Your task to perform on an android device: add a contact Image 0: 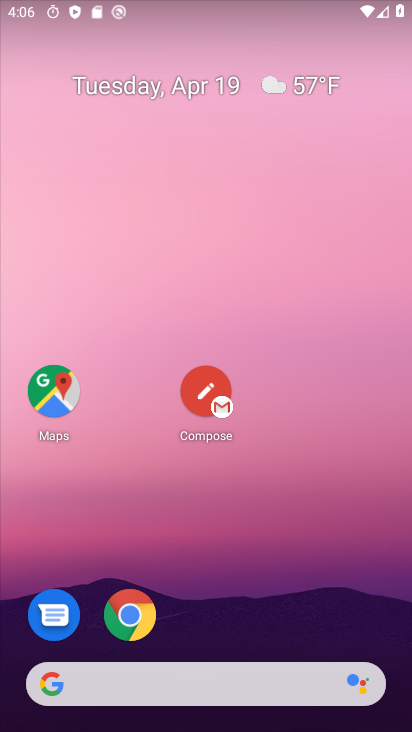
Step 0: drag from (212, 633) to (262, 95)
Your task to perform on an android device: add a contact Image 1: 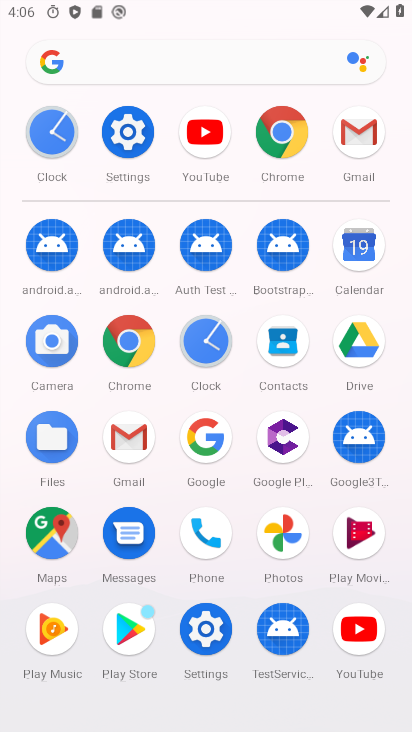
Step 1: click (291, 343)
Your task to perform on an android device: add a contact Image 2: 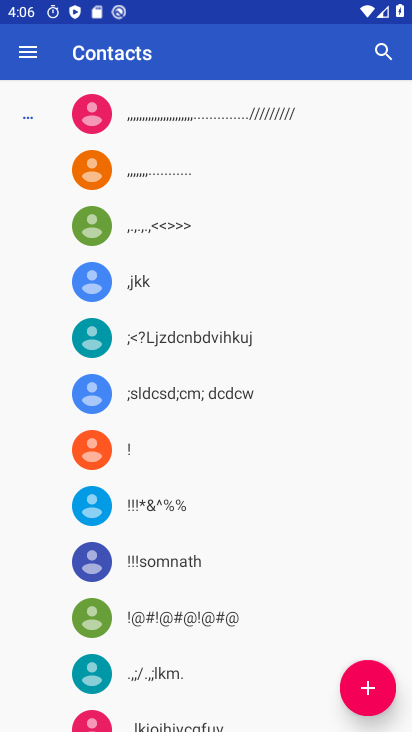
Step 2: click (367, 680)
Your task to perform on an android device: add a contact Image 3: 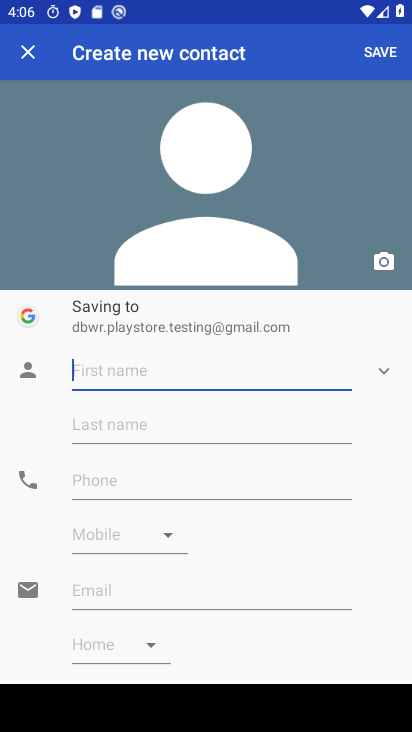
Step 3: type "hkjhkjhkhkjhk"
Your task to perform on an android device: add a contact Image 4: 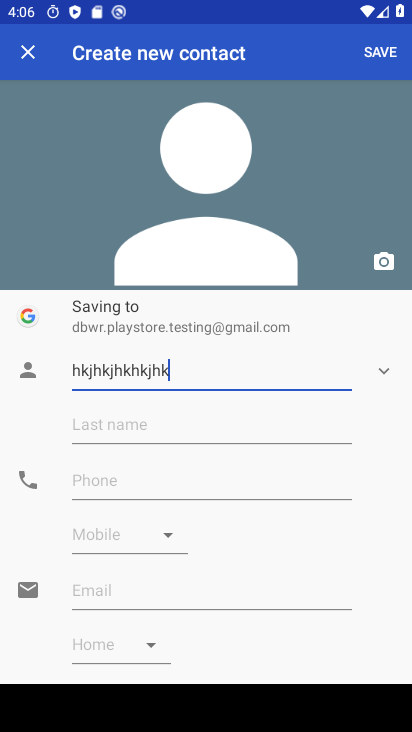
Step 4: click (195, 489)
Your task to perform on an android device: add a contact Image 5: 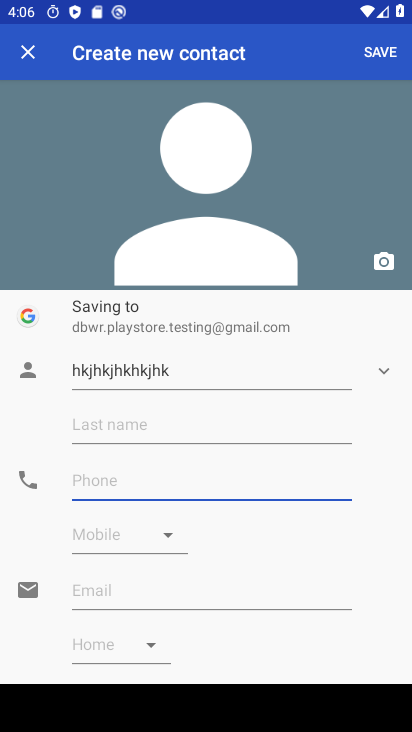
Step 5: type "90867678987"
Your task to perform on an android device: add a contact Image 6: 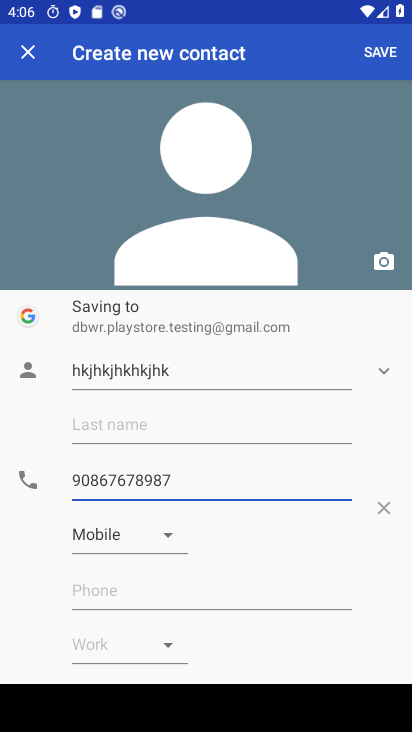
Step 6: click (379, 49)
Your task to perform on an android device: add a contact Image 7: 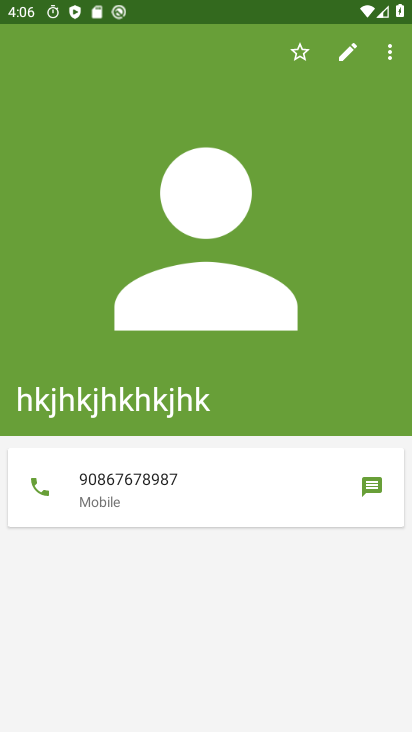
Step 7: task complete